Your task to perform on an android device: Clear the shopping cart on ebay.com. Add razer deathadder to the cart on ebay.com Image 0: 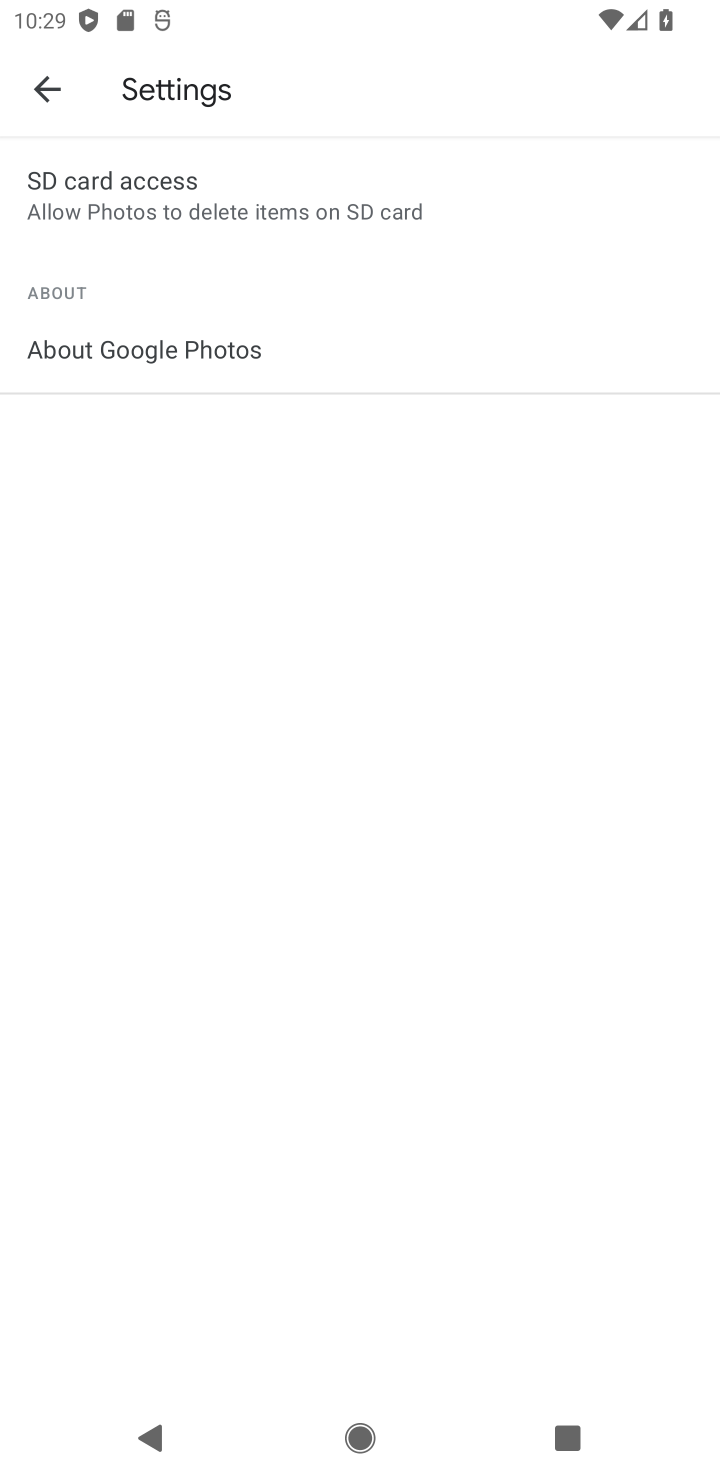
Step 0: press home button
Your task to perform on an android device: Clear the shopping cart on ebay.com. Add razer deathadder to the cart on ebay.com Image 1: 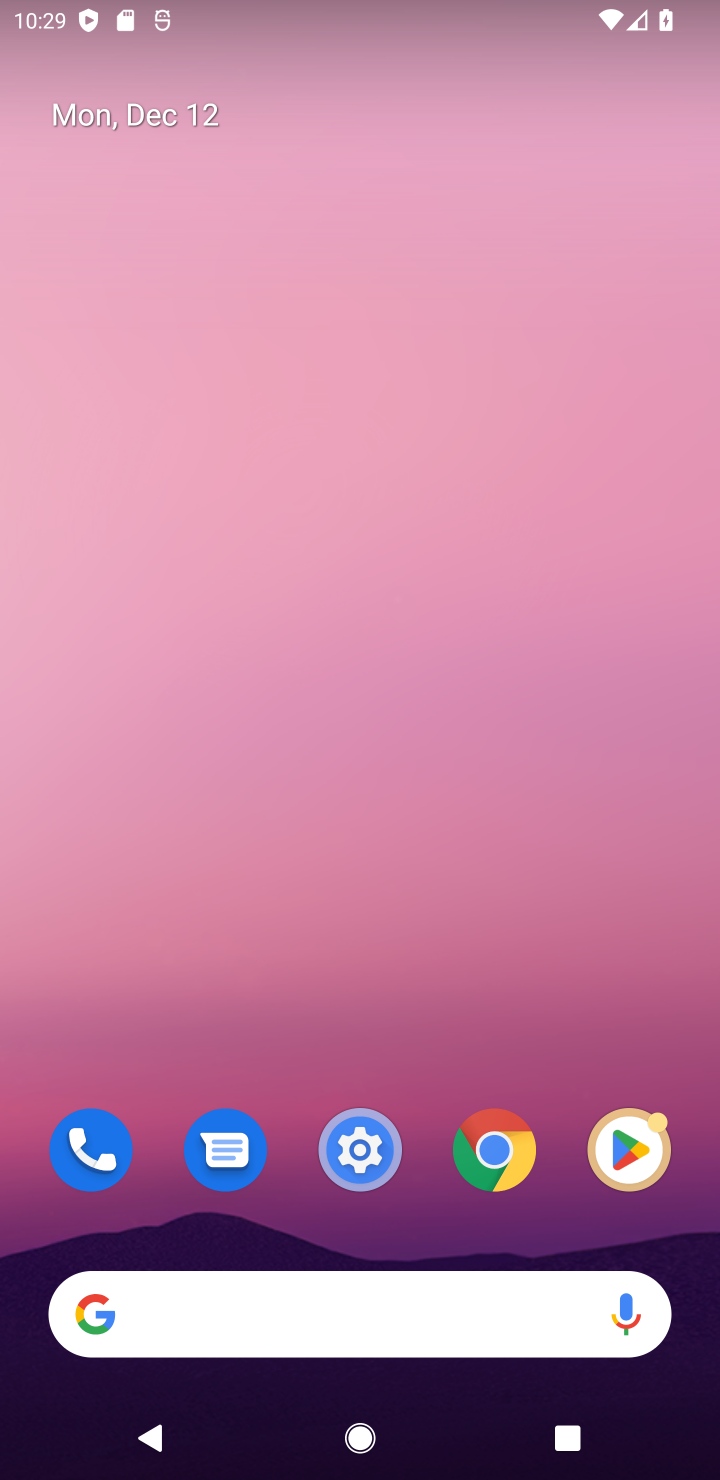
Step 1: click (493, 1138)
Your task to perform on an android device: Clear the shopping cart on ebay.com. Add razer deathadder to the cart on ebay.com Image 2: 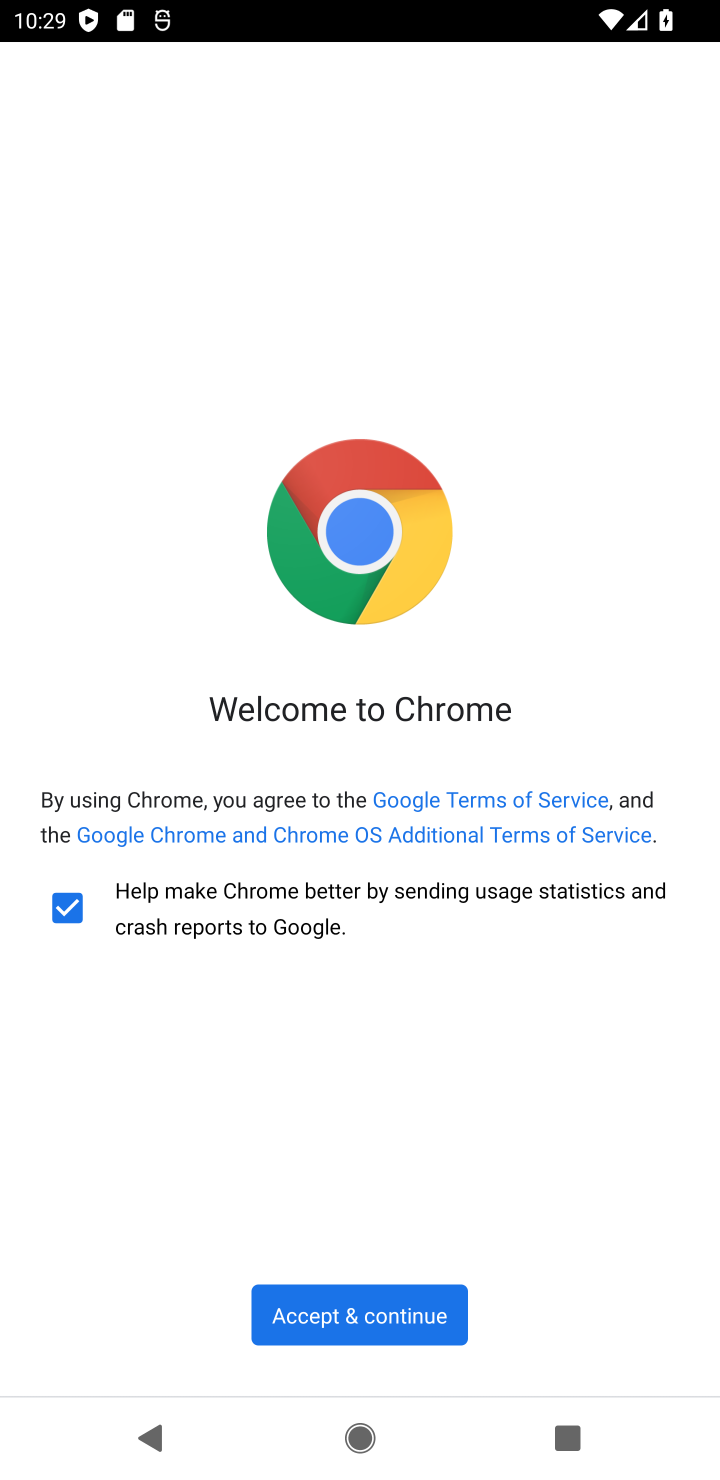
Step 2: click (314, 1315)
Your task to perform on an android device: Clear the shopping cart on ebay.com. Add razer deathadder to the cart on ebay.com Image 3: 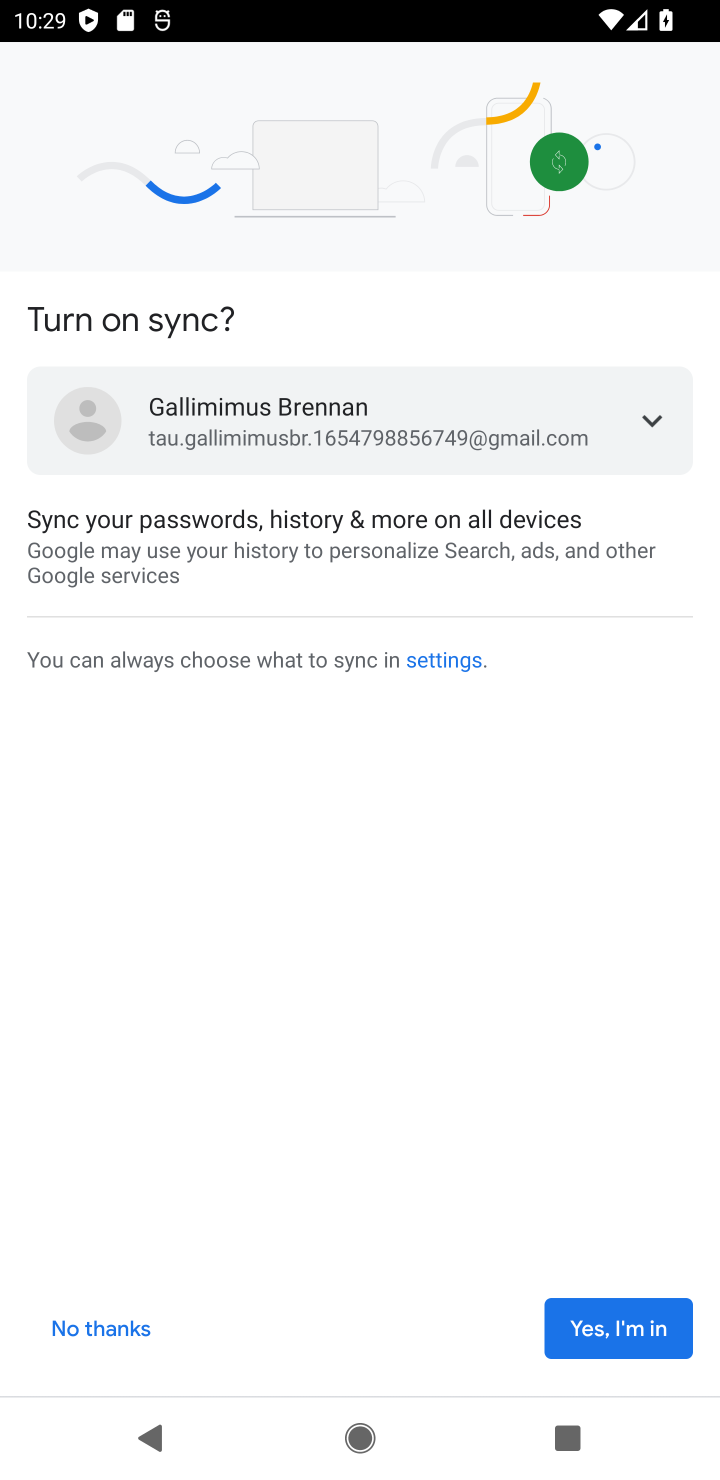
Step 3: click (54, 1330)
Your task to perform on an android device: Clear the shopping cart on ebay.com. Add razer deathadder to the cart on ebay.com Image 4: 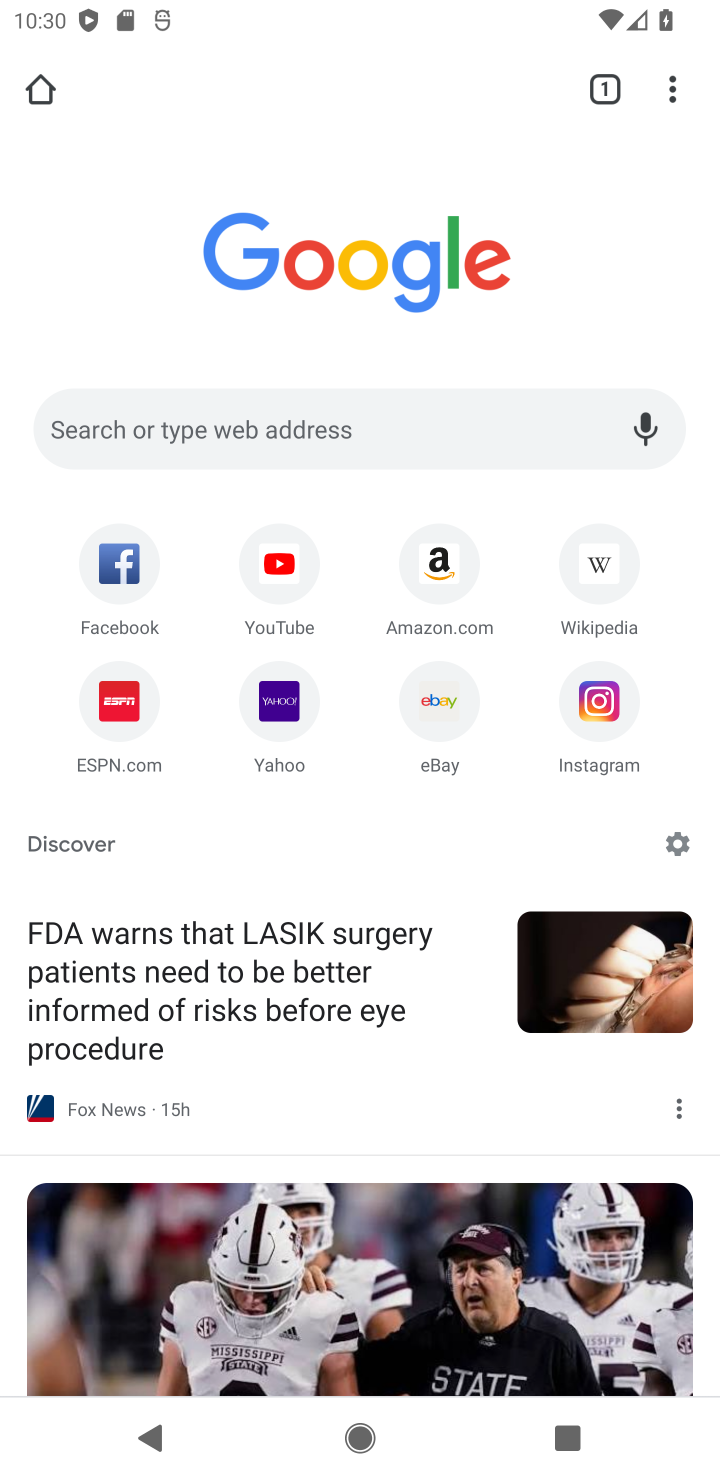
Step 4: click (439, 736)
Your task to perform on an android device: Clear the shopping cart on ebay.com. Add razer deathadder to the cart on ebay.com Image 5: 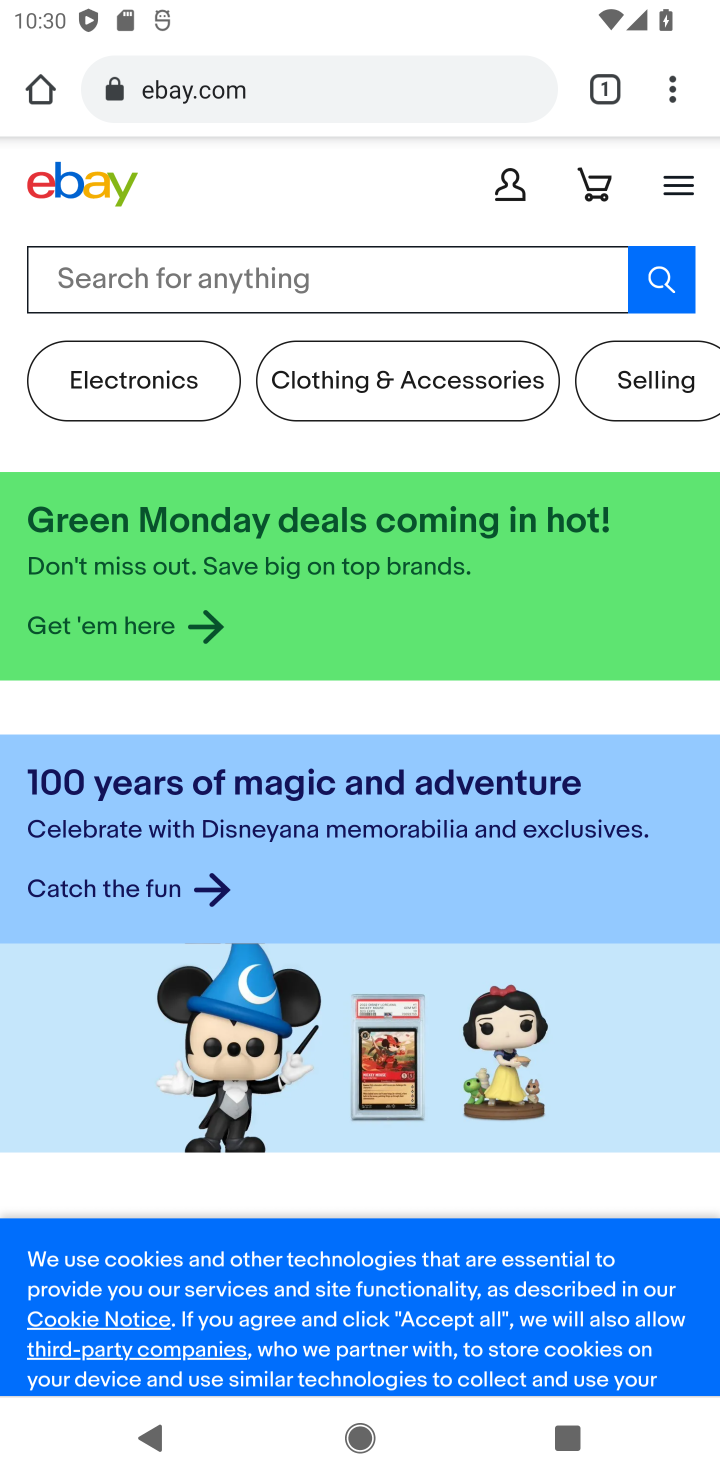
Step 5: click (591, 185)
Your task to perform on an android device: Clear the shopping cart on ebay.com. Add razer deathadder to the cart on ebay.com Image 6: 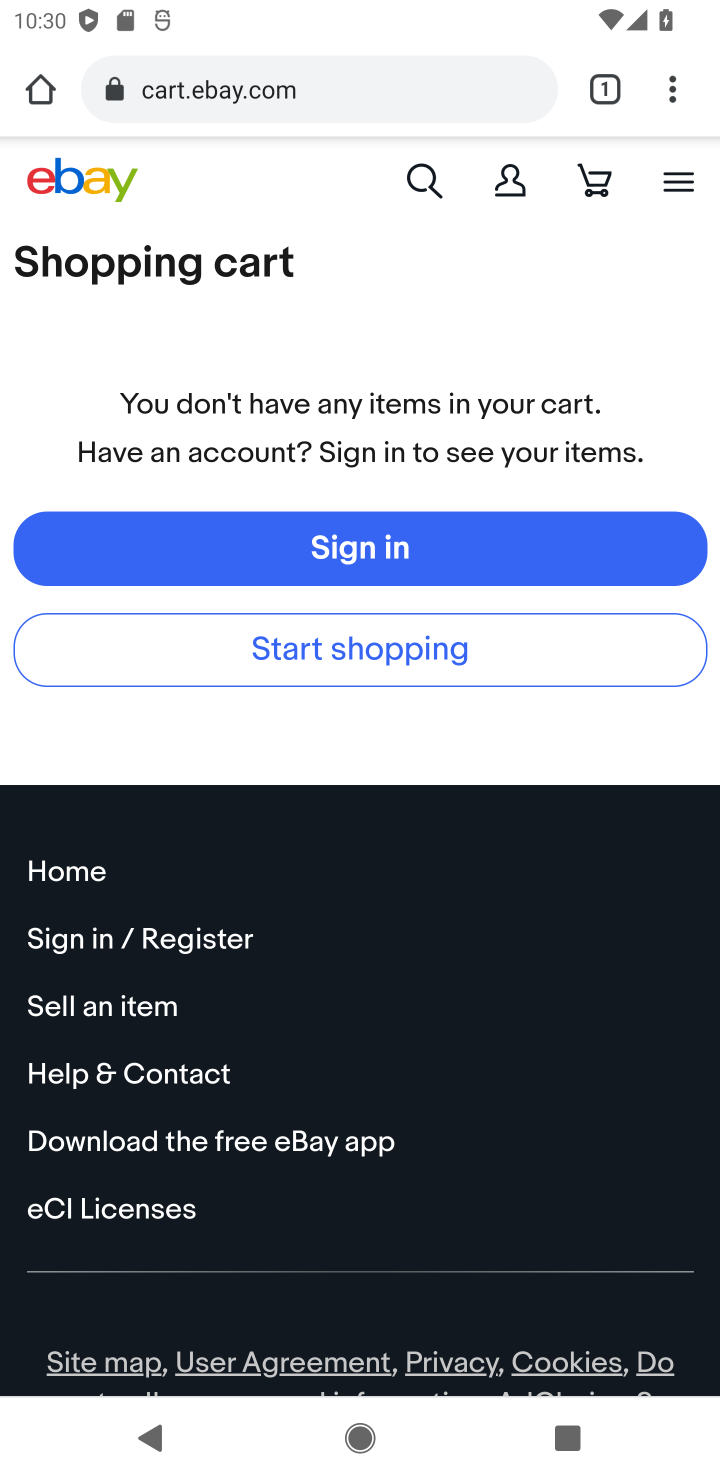
Step 6: click (417, 179)
Your task to perform on an android device: Clear the shopping cart on ebay.com. Add razer deathadder to the cart on ebay.com Image 7: 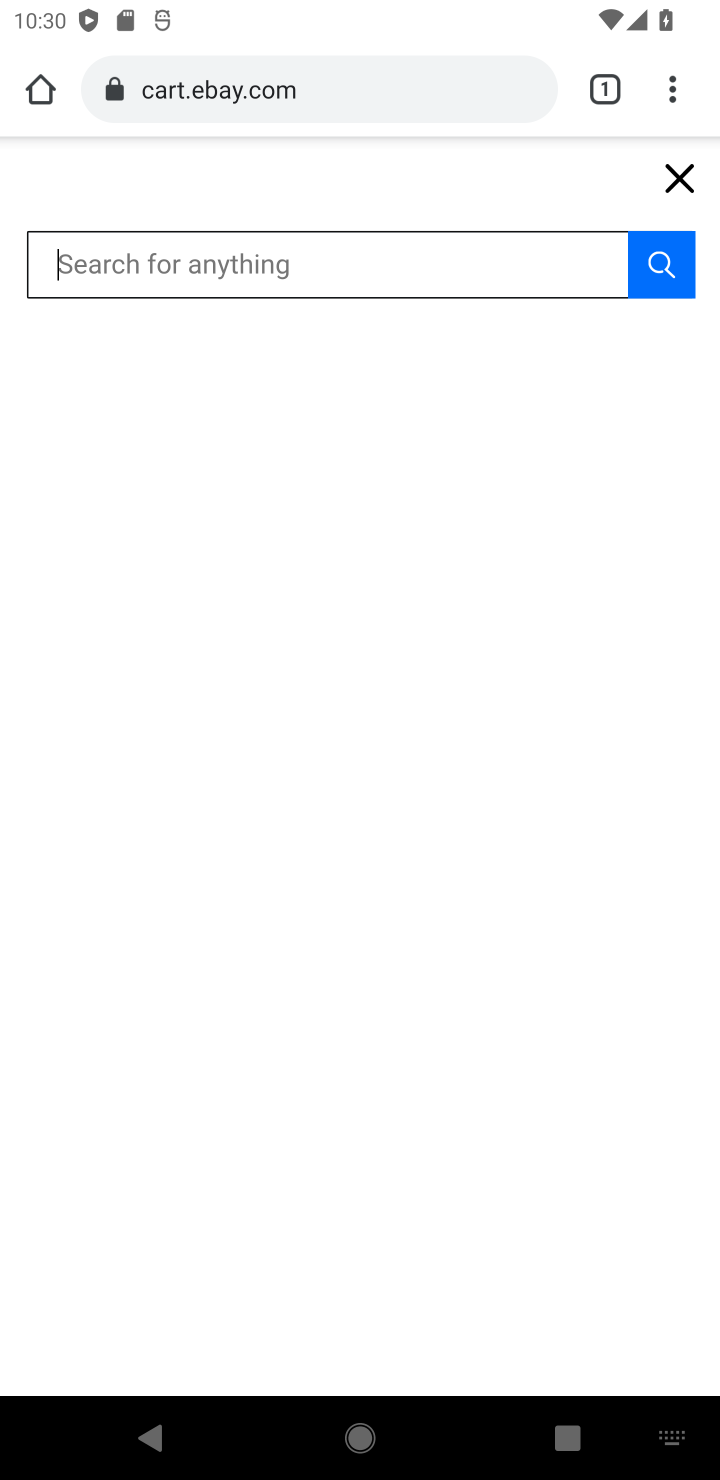
Step 7: type "razer deathadder"
Your task to perform on an android device: Clear the shopping cart on ebay.com. Add razer deathadder to the cart on ebay.com Image 8: 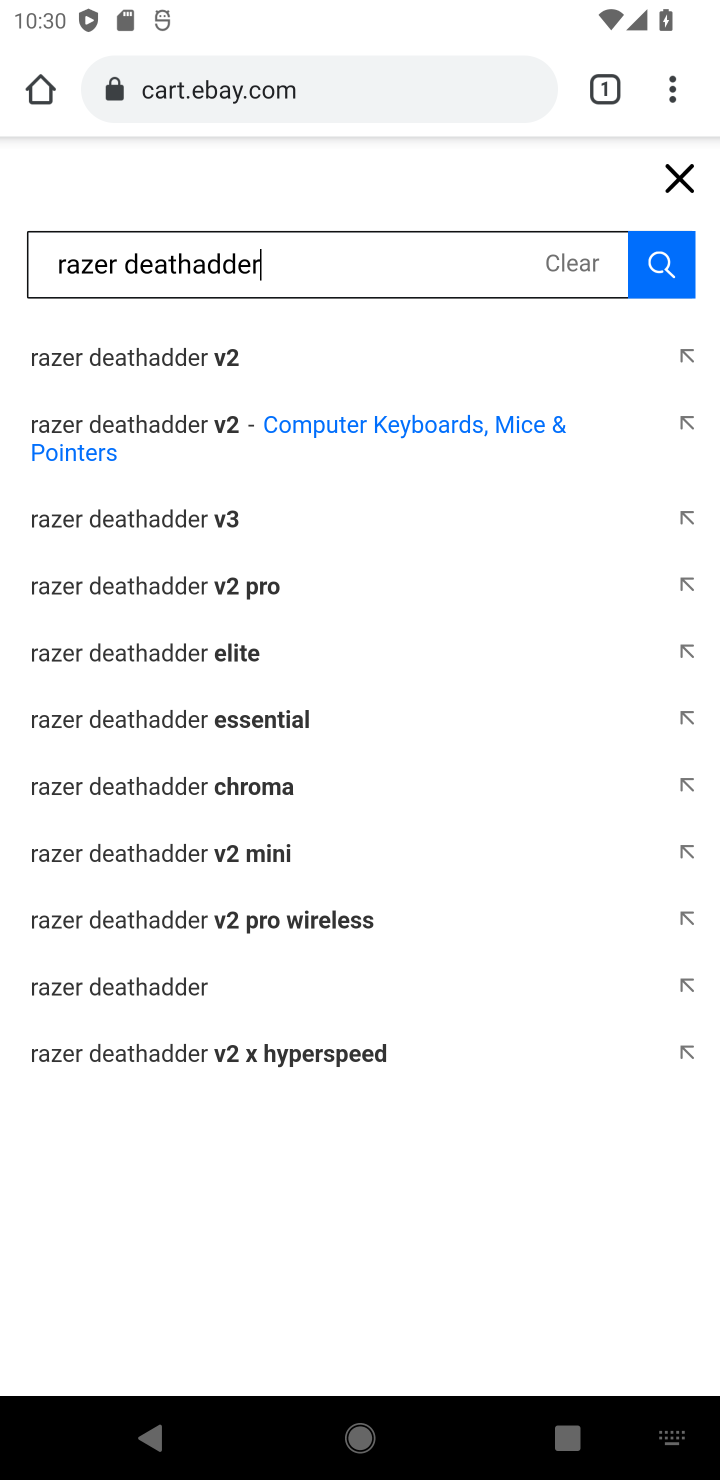
Step 8: click (109, 986)
Your task to perform on an android device: Clear the shopping cart on ebay.com. Add razer deathadder to the cart on ebay.com Image 9: 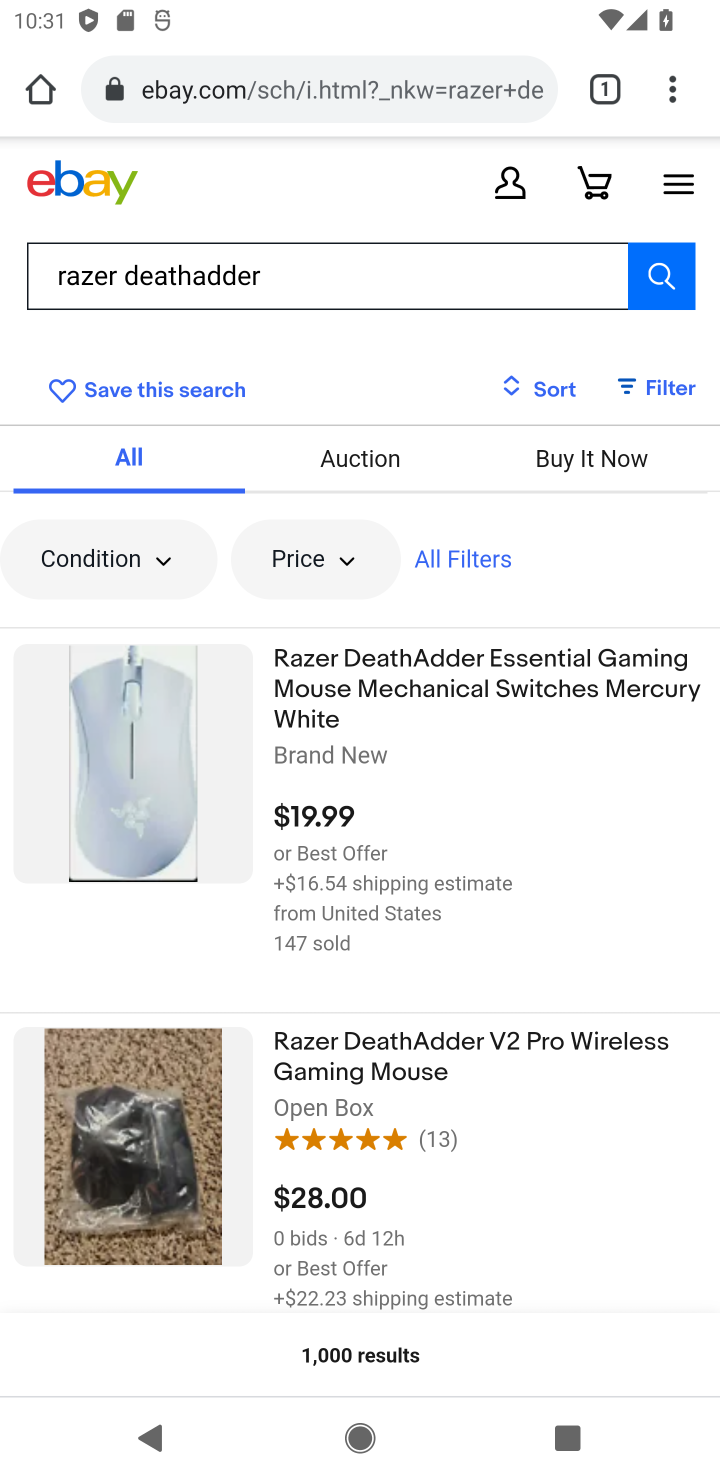
Step 9: click (319, 694)
Your task to perform on an android device: Clear the shopping cart on ebay.com. Add razer deathadder to the cart on ebay.com Image 10: 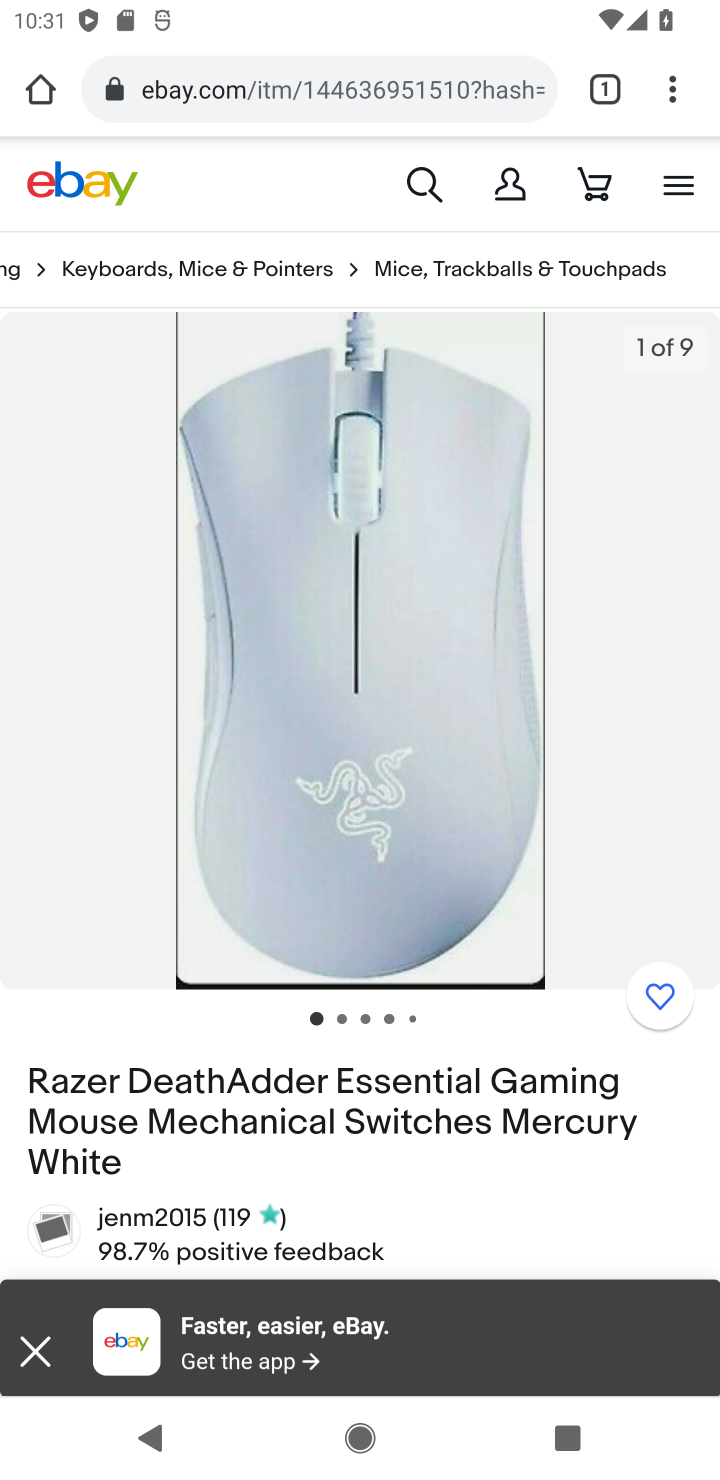
Step 10: drag from (430, 1112) to (388, 564)
Your task to perform on an android device: Clear the shopping cart on ebay.com. Add razer deathadder to the cart on ebay.com Image 11: 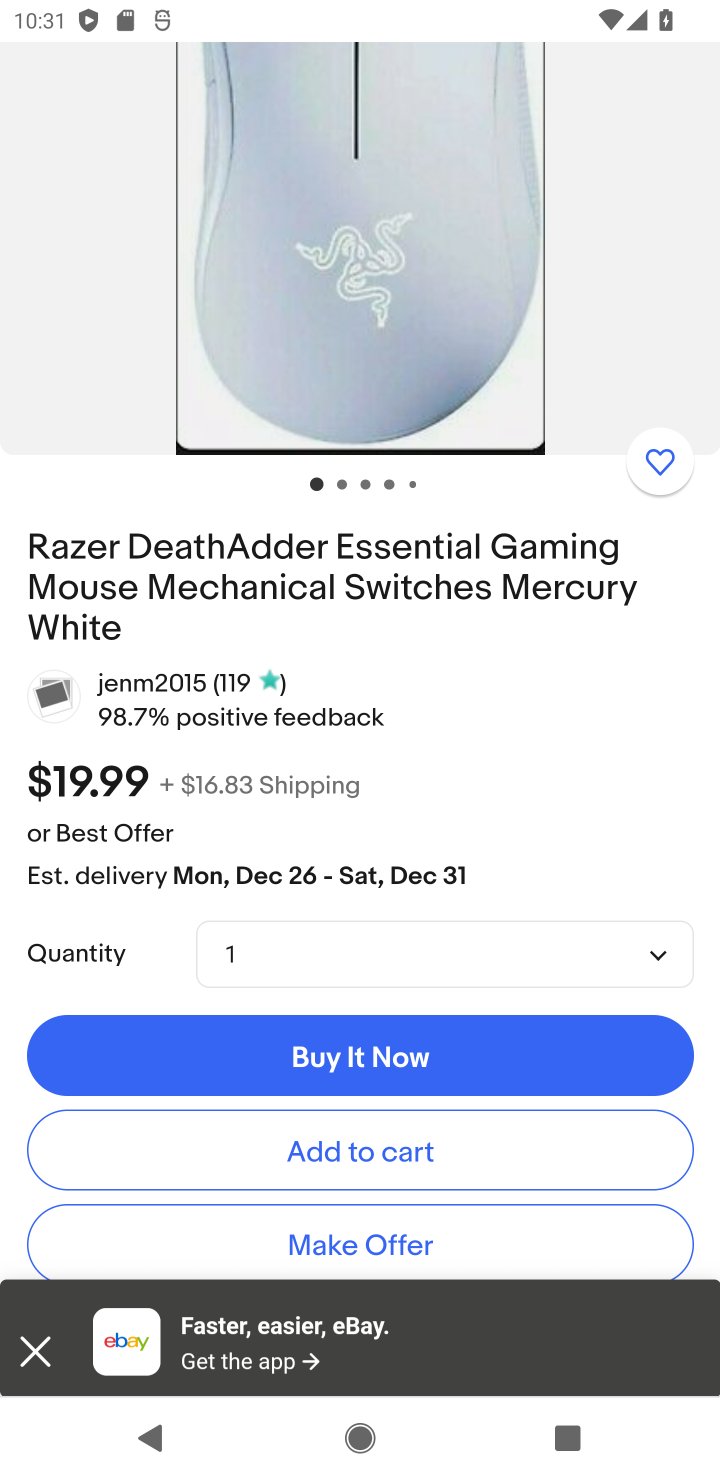
Step 11: click (348, 1152)
Your task to perform on an android device: Clear the shopping cart on ebay.com. Add razer deathadder to the cart on ebay.com Image 12: 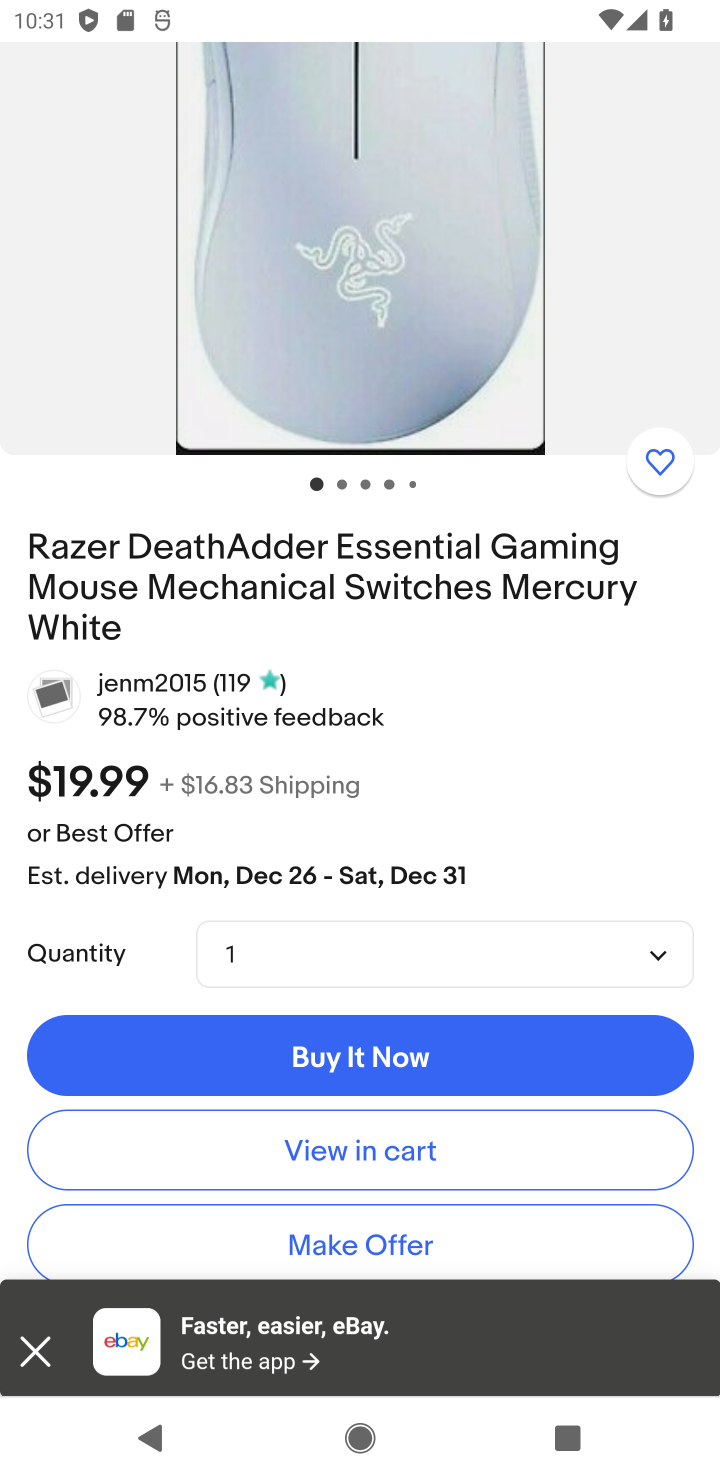
Step 12: task complete